Your task to perform on an android device: Check the weather Image 0: 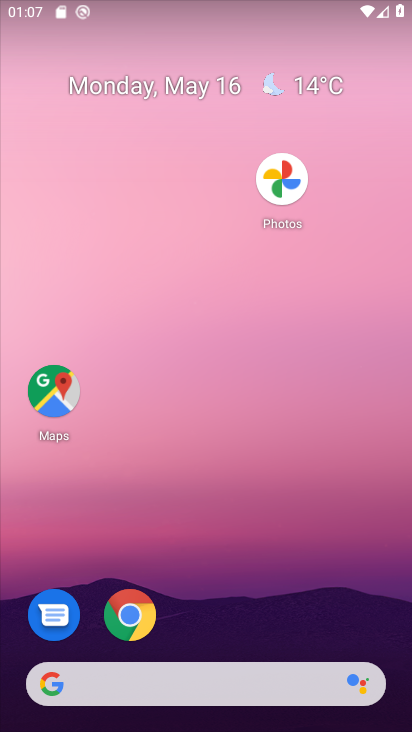
Step 0: drag from (266, 594) to (337, 164)
Your task to perform on an android device: Check the weather Image 1: 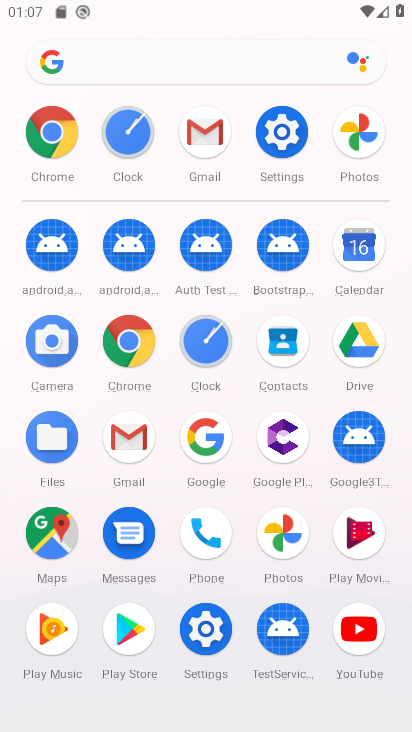
Step 1: click (129, 361)
Your task to perform on an android device: Check the weather Image 2: 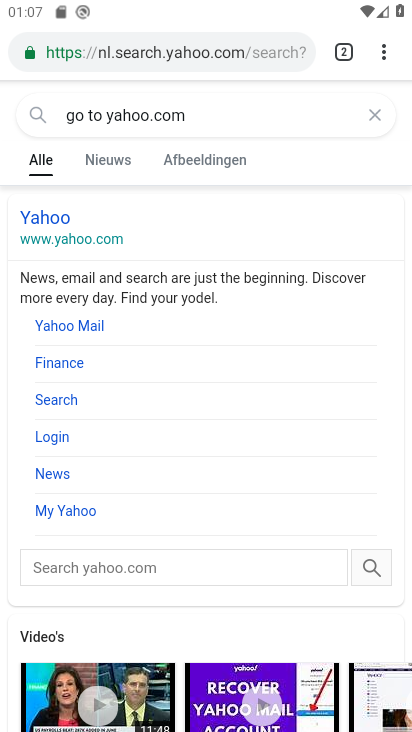
Step 2: click (236, 54)
Your task to perform on an android device: Check the weather Image 3: 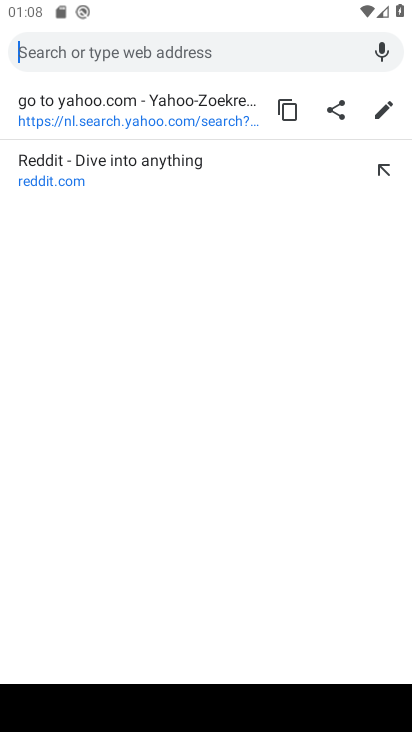
Step 3: type "check the weather"
Your task to perform on an android device: Check the weather Image 4: 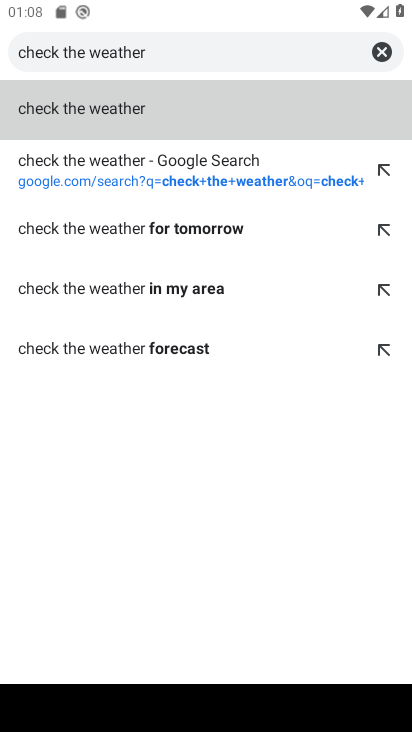
Step 4: click (143, 114)
Your task to perform on an android device: Check the weather Image 5: 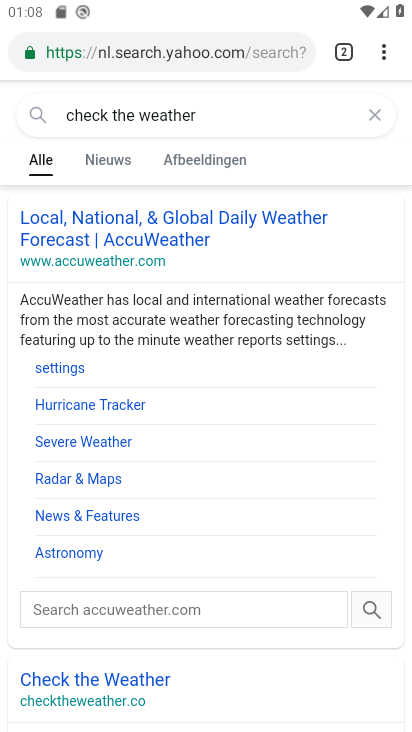
Step 5: click (146, 682)
Your task to perform on an android device: Check the weather Image 6: 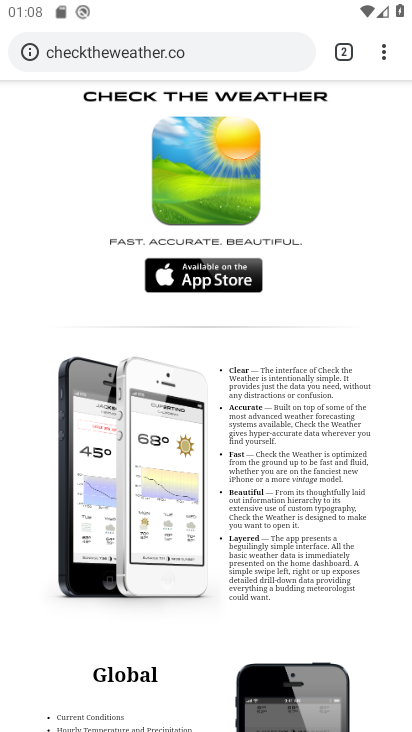
Step 6: drag from (321, 591) to (331, 211)
Your task to perform on an android device: Check the weather Image 7: 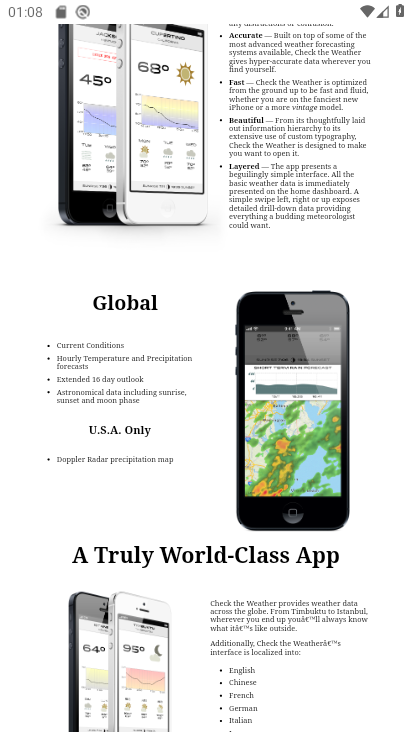
Step 7: press back button
Your task to perform on an android device: Check the weather Image 8: 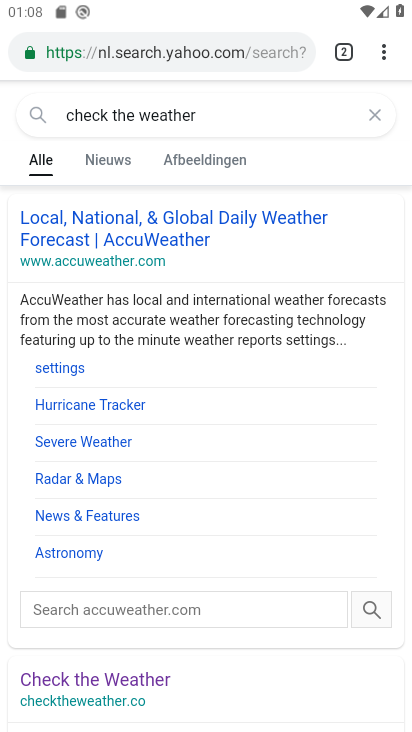
Step 8: drag from (201, 608) to (202, 322)
Your task to perform on an android device: Check the weather Image 9: 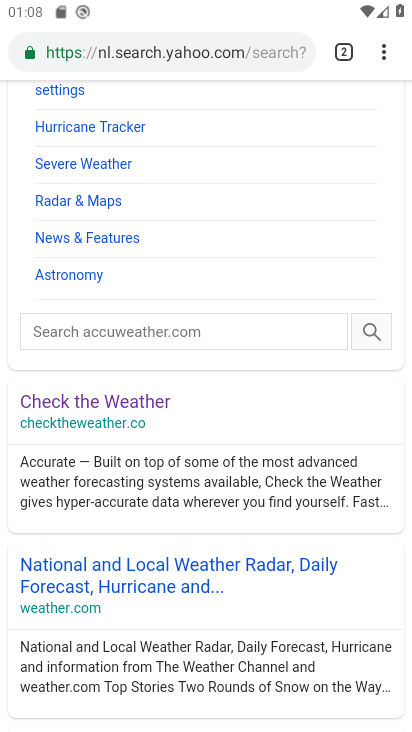
Step 9: click (103, 565)
Your task to perform on an android device: Check the weather Image 10: 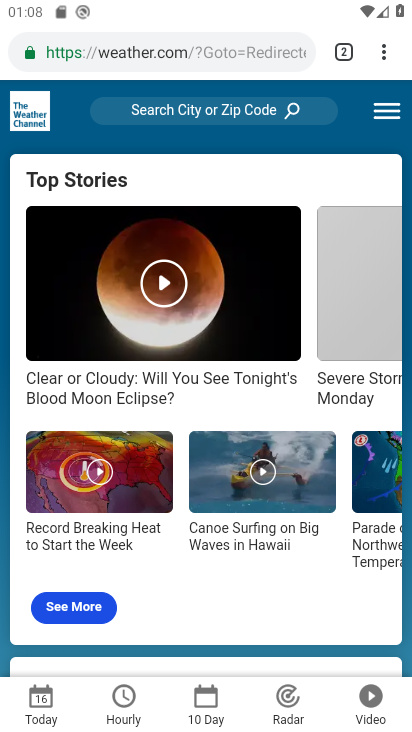
Step 10: task complete